Your task to perform on an android device: change the clock style Image 0: 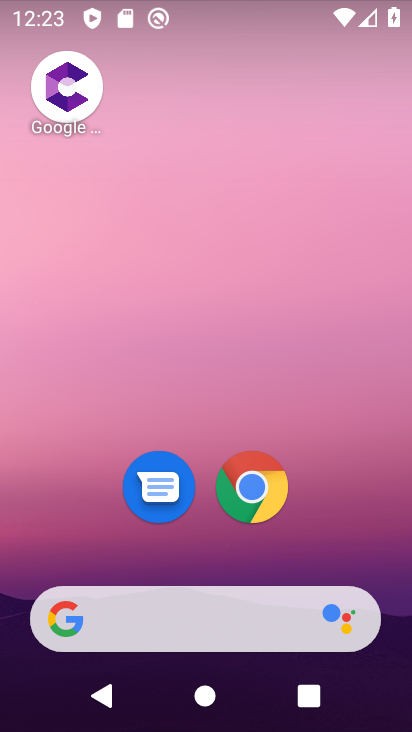
Step 0: click (248, 136)
Your task to perform on an android device: change the clock style Image 1: 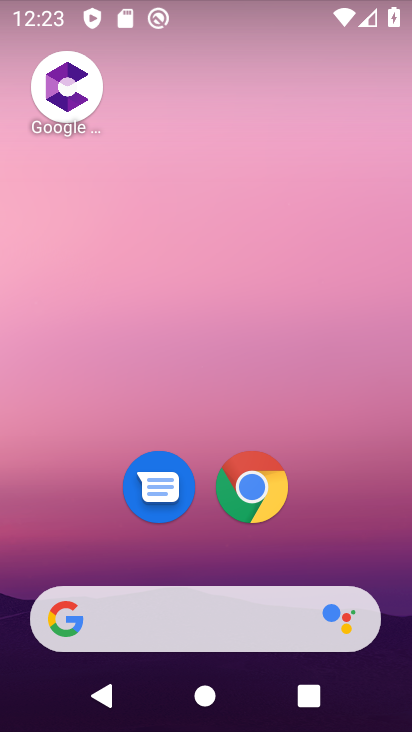
Step 1: drag from (202, 587) to (247, 164)
Your task to perform on an android device: change the clock style Image 2: 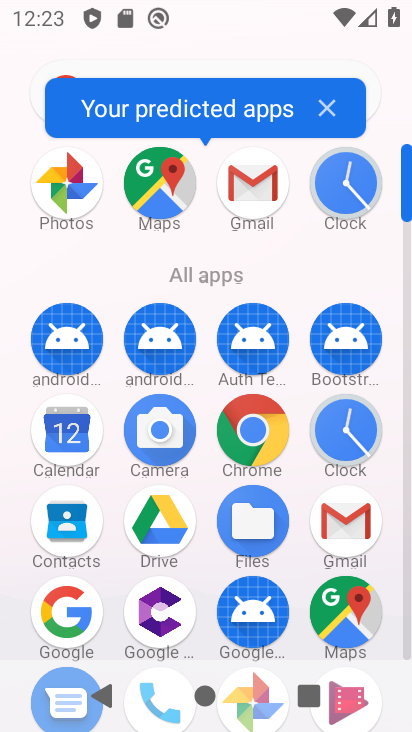
Step 2: click (363, 425)
Your task to perform on an android device: change the clock style Image 3: 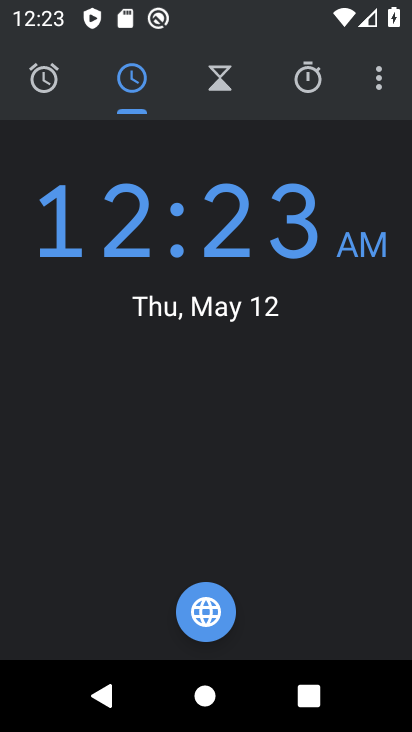
Step 3: click (375, 80)
Your task to perform on an android device: change the clock style Image 4: 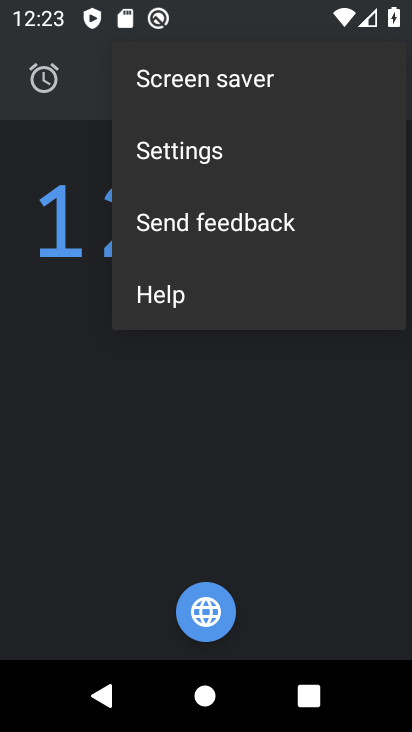
Step 4: click (214, 152)
Your task to perform on an android device: change the clock style Image 5: 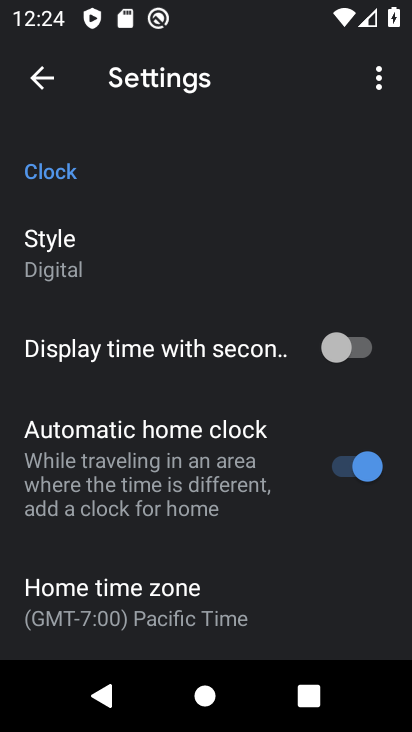
Step 5: click (90, 243)
Your task to perform on an android device: change the clock style Image 6: 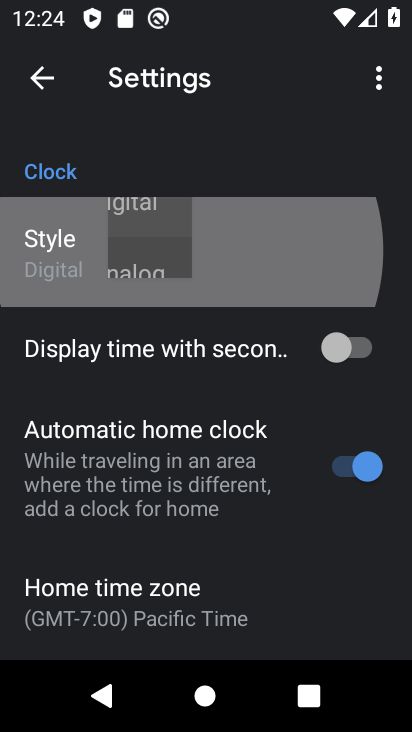
Step 6: click (73, 253)
Your task to perform on an android device: change the clock style Image 7: 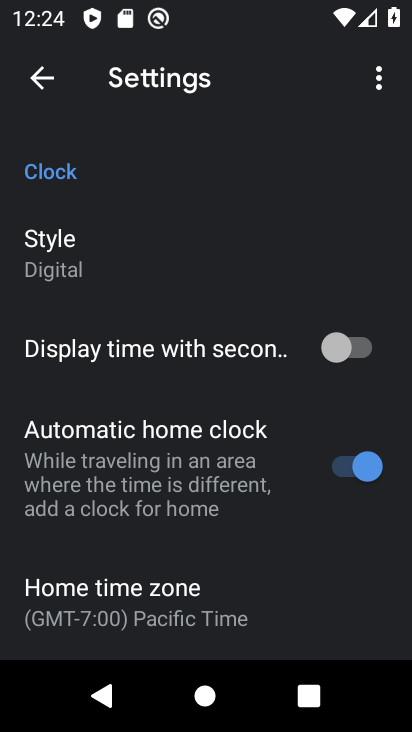
Step 7: click (53, 267)
Your task to perform on an android device: change the clock style Image 8: 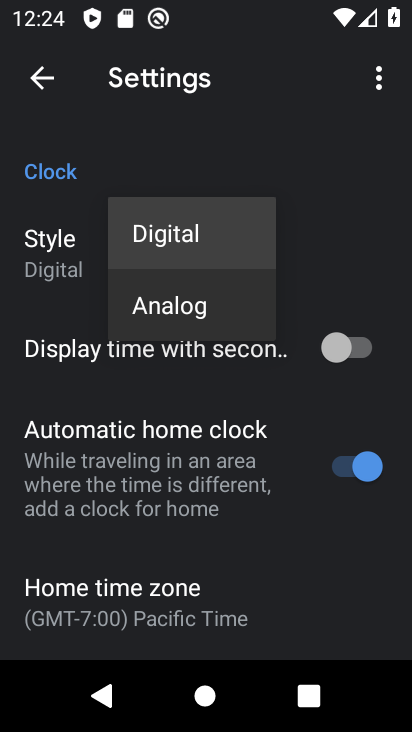
Step 8: click (237, 312)
Your task to perform on an android device: change the clock style Image 9: 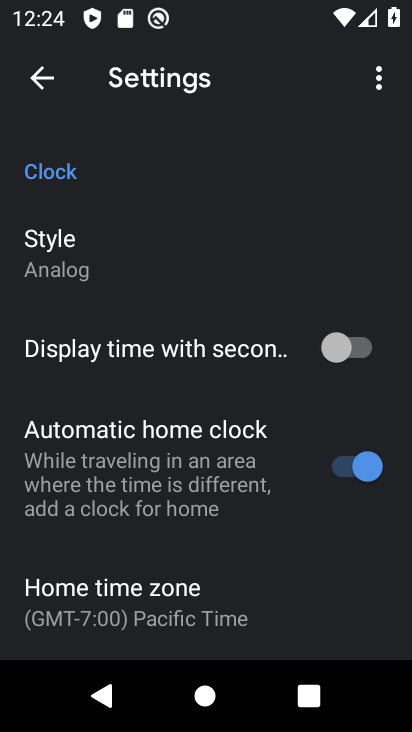
Step 9: task complete